Your task to perform on an android device: What's the weather going to be tomorrow? Image 0: 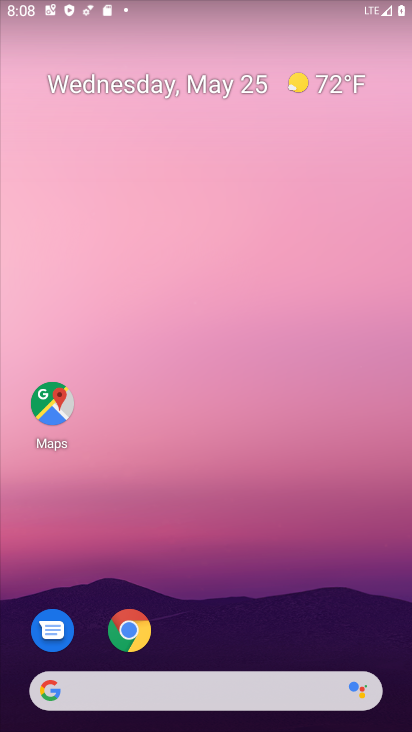
Step 0: drag from (230, 650) to (208, 259)
Your task to perform on an android device: What's the weather going to be tomorrow? Image 1: 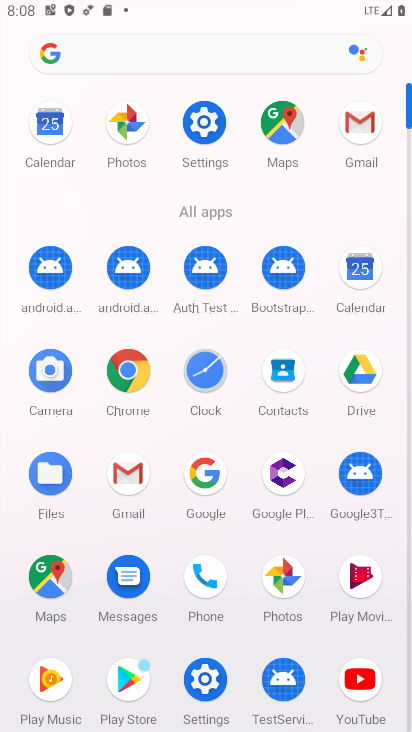
Step 1: click (202, 467)
Your task to perform on an android device: What's the weather going to be tomorrow? Image 2: 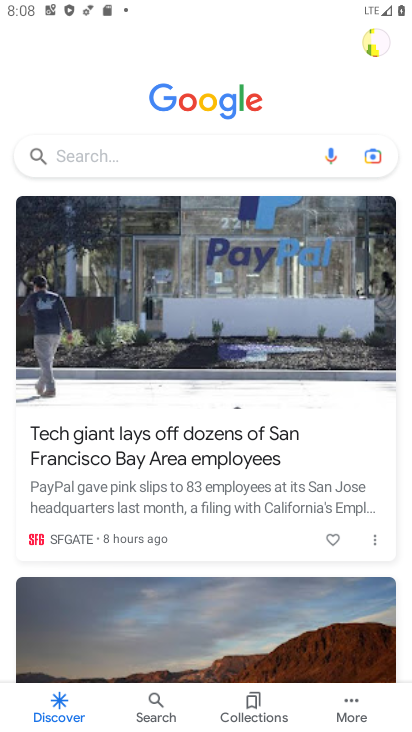
Step 2: click (220, 153)
Your task to perform on an android device: What's the weather going to be tomorrow? Image 3: 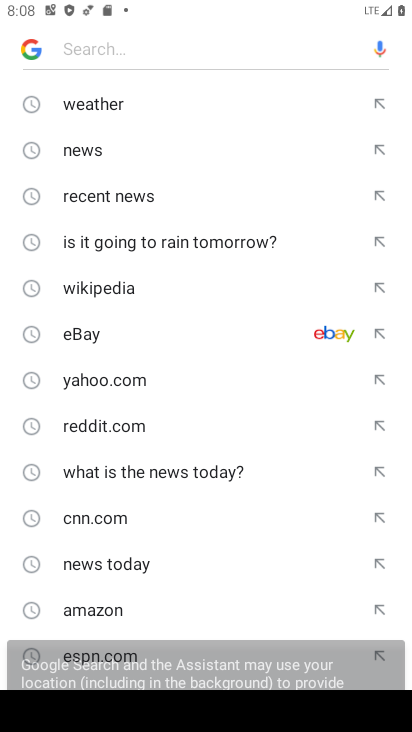
Step 3: click (94, 103)
Your task to perform on an android device: What's the weather going to be tomorrow? Image 4: 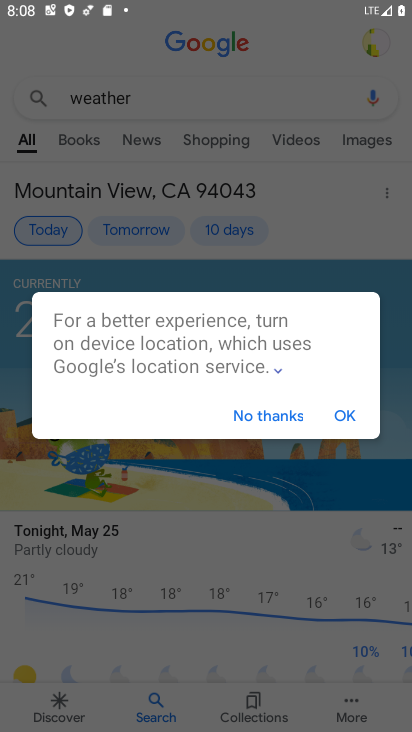
Step 4: click (274, 416)
Your task to perform on an android device: What's the weather going to be tomorrow? Image 5: 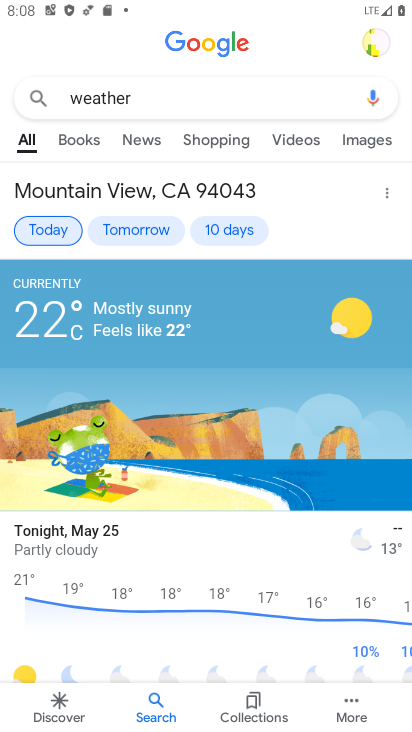
Step 5: click (160, 222)
Your task to perform on an android device: What's the weather going to be tomorrow? Image 6: 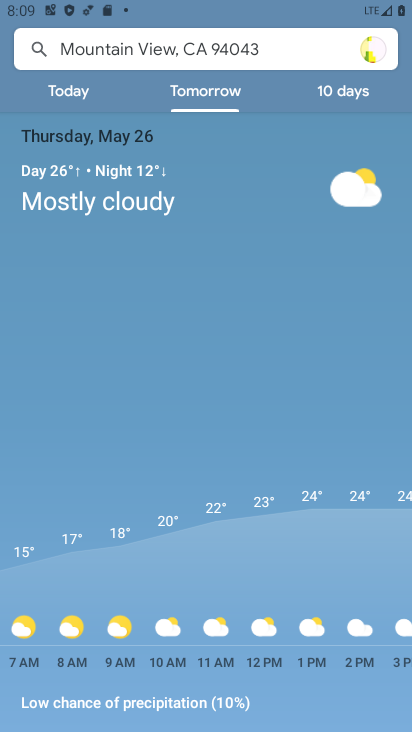
Step 6: task complete